Your task to perform on an android device: find snoozed emails in the gmail app Image 0: 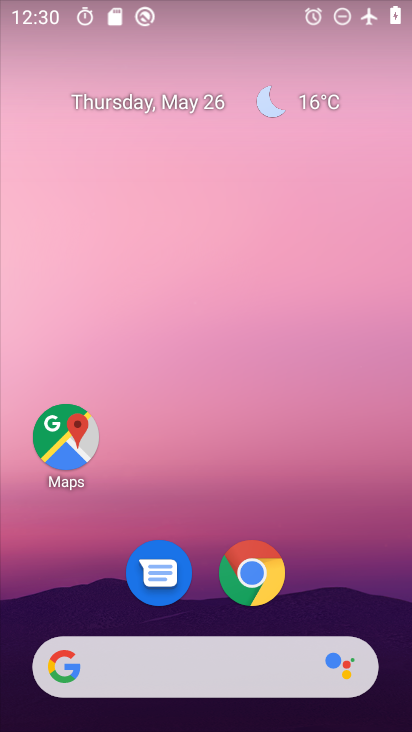
Step 0: drag from (368, 604) to (352, 16)
Your task to perform on an android device: find snoozed emails in the gmail app Image 1: 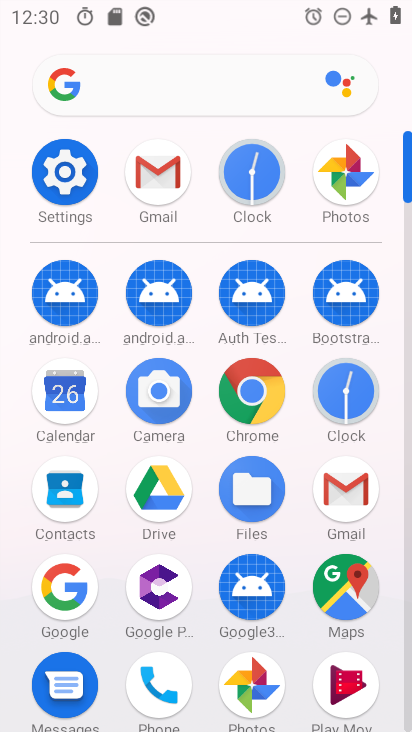
Step 1: click (153, 179)
Your task to perform on an android device: find snoozed emails in the gmail app Image 2: 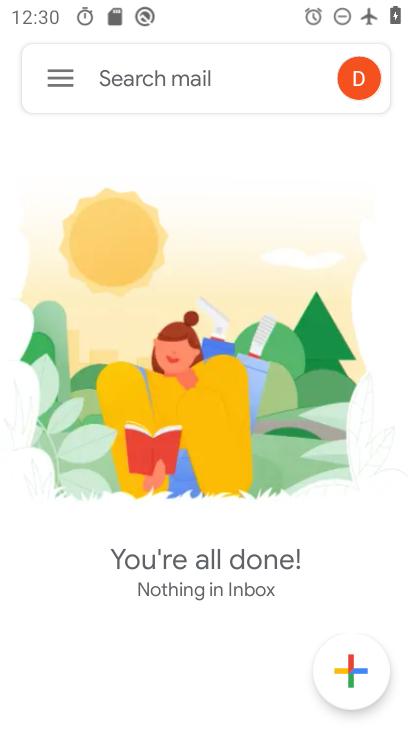
Step 2: click (51, 71)
Your task to perform on an android device: find snoozed emails in the gmail app Image 3: 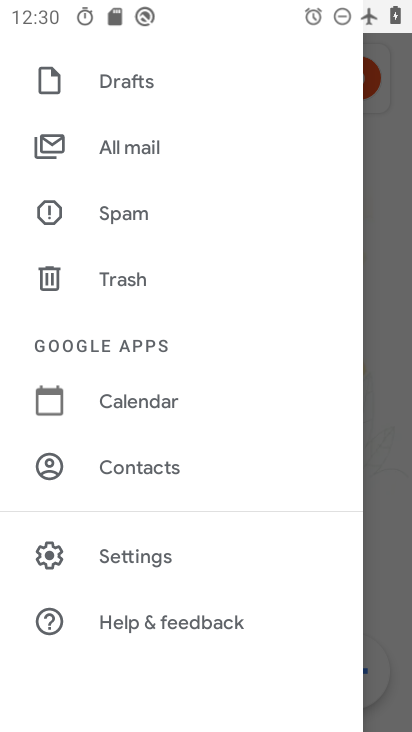
Step 3: drag from (227, 157) to (221, 660)
Your task to perform on an android device: find snoozed emails in the gmail app Image 4: 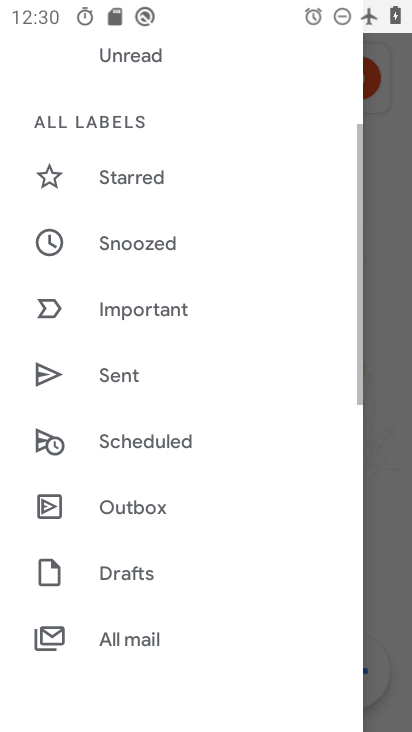
Step 4: drag from (218, 200) to (228, 377)
Your task to perform on an android device: find snoozed emails in the gmail app Image 5: 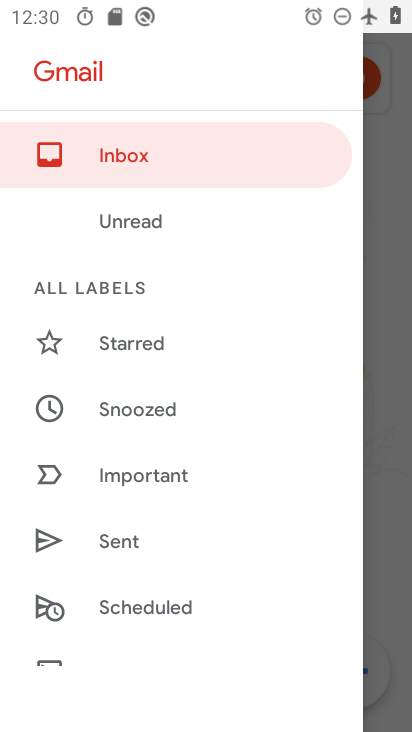
Step 5: click (227, 252)
Your task to perform on an android device: find snoozed emails in the gmail app Image 6: 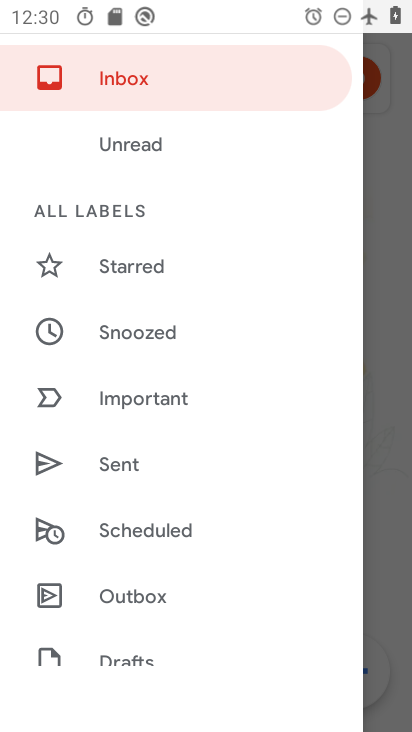
Step 6: click (150, 329)
Your task to perform on an android device: find snoozed emails in the gmail app Image 7: 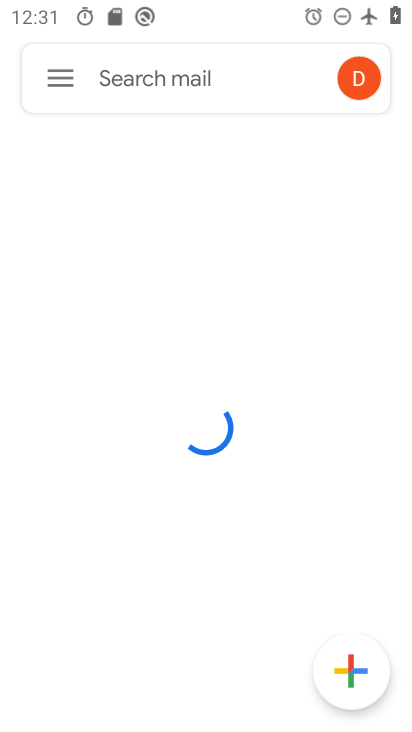
Step 7: task complete